Your task to perform on an android device: install app "LiveIn - Share Your Moment" Image 0: 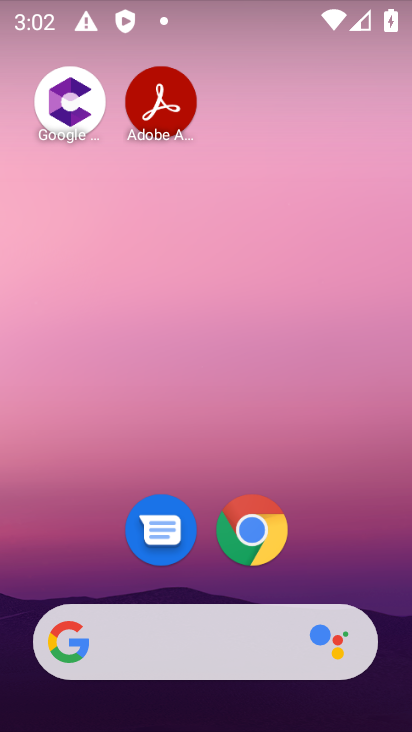
Step 0: drag from (335, 598) to (321, 71)
Your task to perform on an android device: install app "LiveIn - Share Your Moment" Image 1: 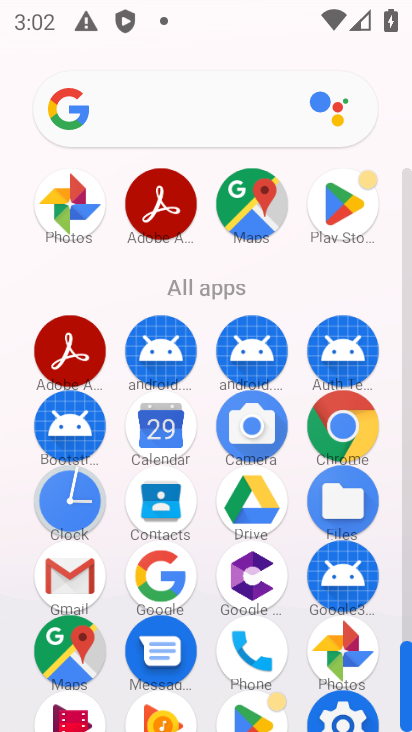
Step 1: click (352, 208)
Your task to perform on an android device: install app "LiveIn - Share Your Moment" Image 2: 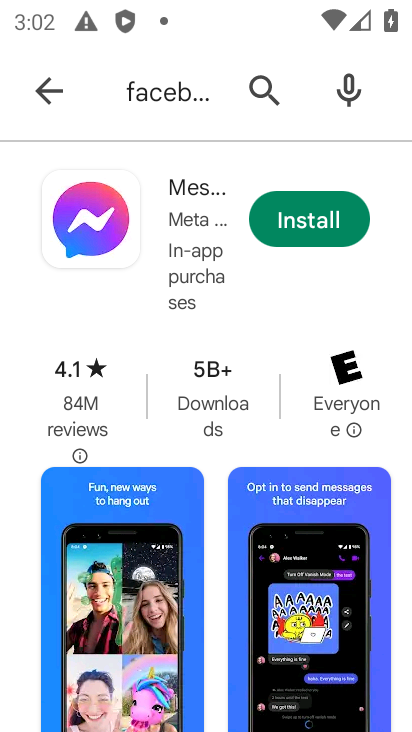
Step 2: click (263, 92)
Your task to perform on an android device: install app "LiveIn - Share Your Moment" Image 3: 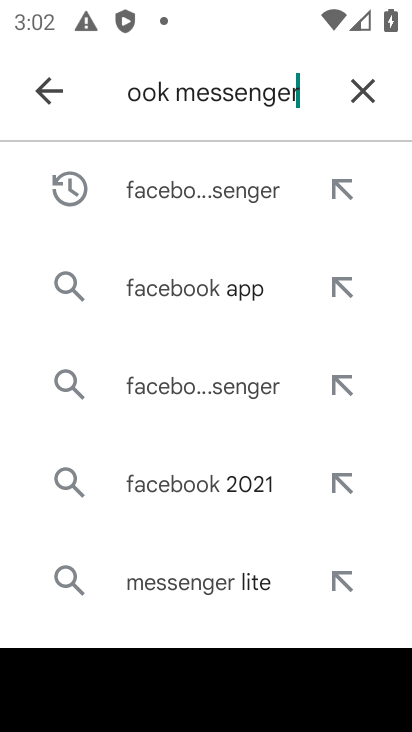
Step 3: click (372, 94)
Your task to perform on an android device: install app "LiveIn - Share Your Moment" Image 4: 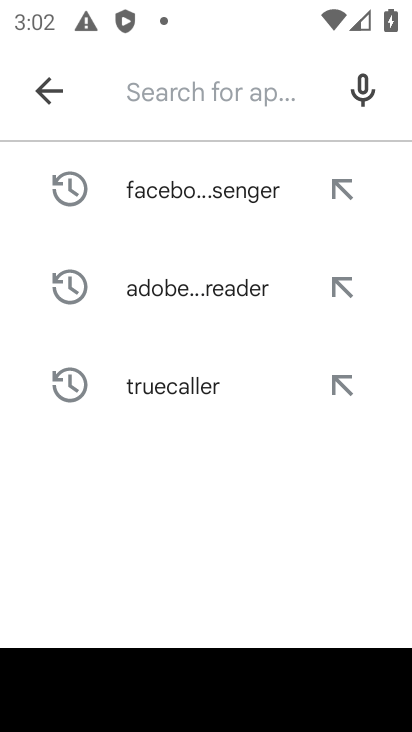
Step 4: type "LiveIn - Share Your Moment"
Your task to perform on an android device: install app "LiveIn - Share Your Moment" Image 5: 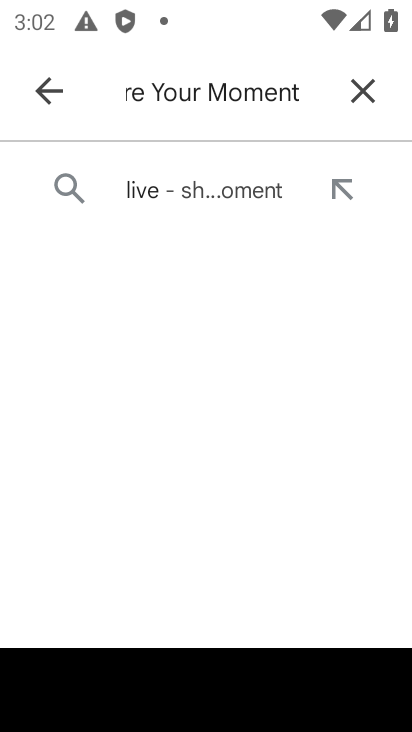
Step 5: click (157, 193)
Your task to perform on an android device: install app "LiveIn - Share Your Moment" Image 6: 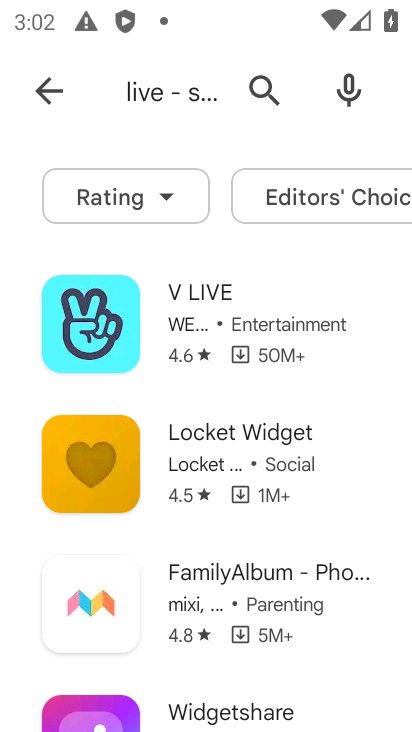
Step 6: task complete